Your task to perform on an android device: Go to location settings Image 0: 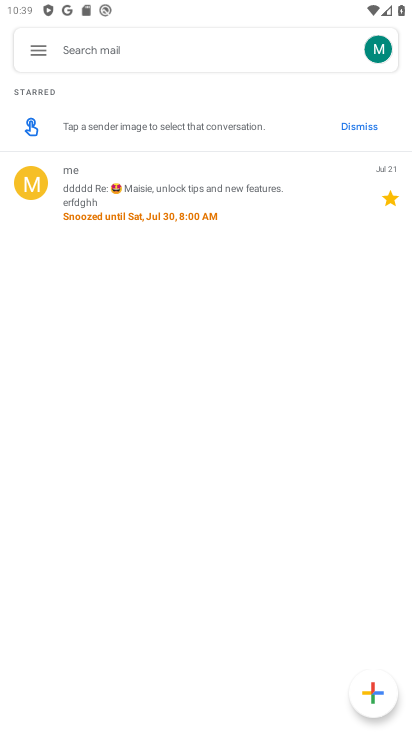
Step 0: press home button
Your task to perform on an android device: Go to location settings Image 1: 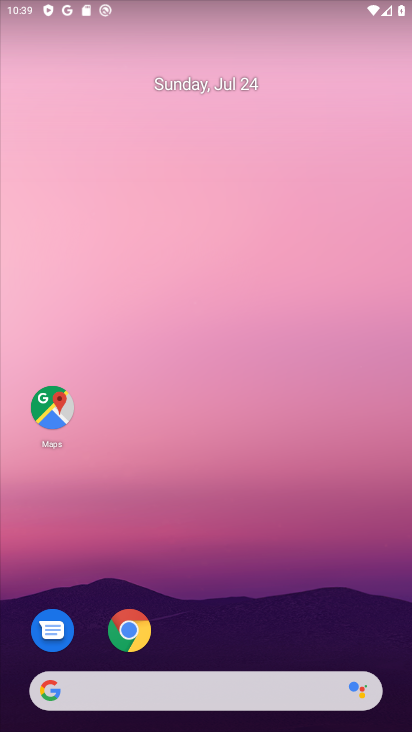
Step 1: drag from (226, 357) to (240, 219)
Your task to perform on an android device: Go to location settings Image 2: 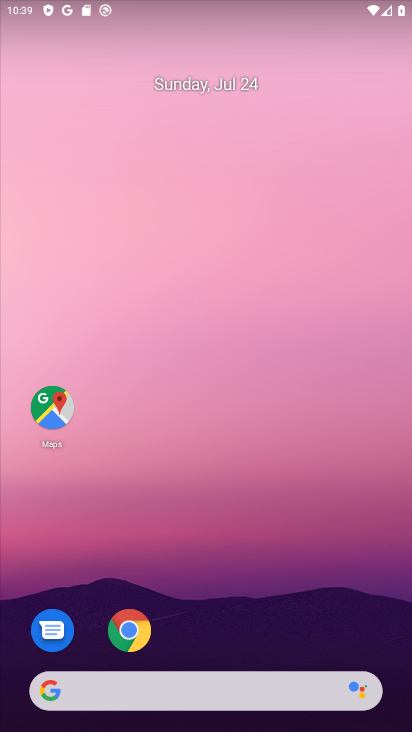
Step 2: drag from (243, 633) to (241, 105)
Your task to perform on an android device: Go to location settings Image 3: 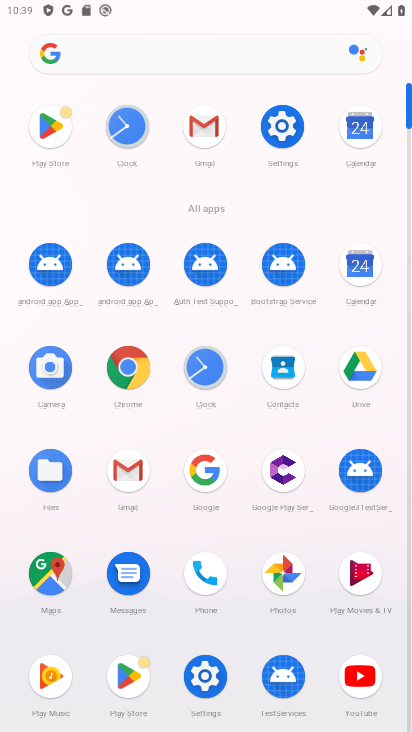
Step 3: click (295, 125)
Your task to perform on an android device: Go to location settings Image 4: 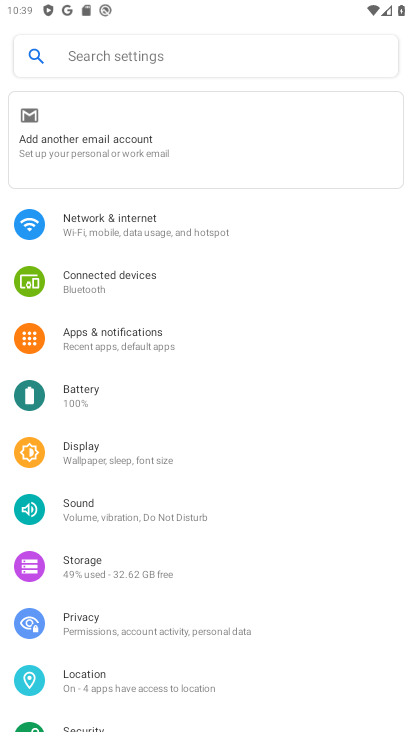
Step 4: click (101, 682)
Your task to perform on an android device: Go to location settings Image 5: 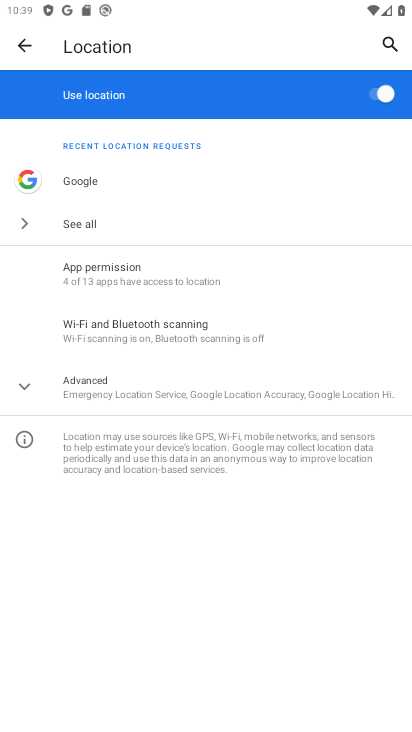
Step 5: task complete